Your task to perform on an android device: Open my contact list Image 0: 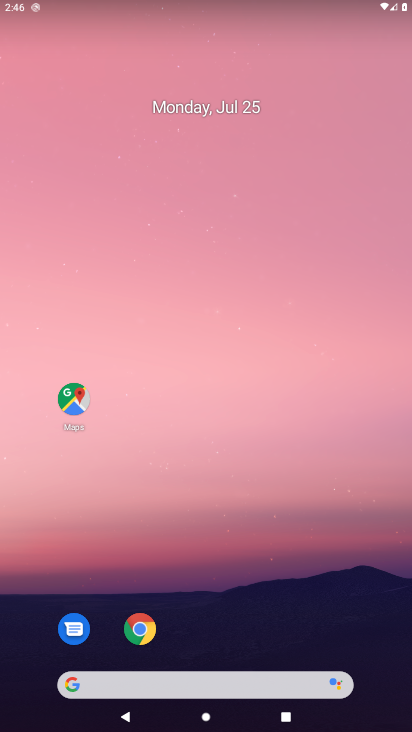
Step 0: drag from (151, 507) to (205, 376)
Your task to perform on an android device: Open my contact list Image 1: 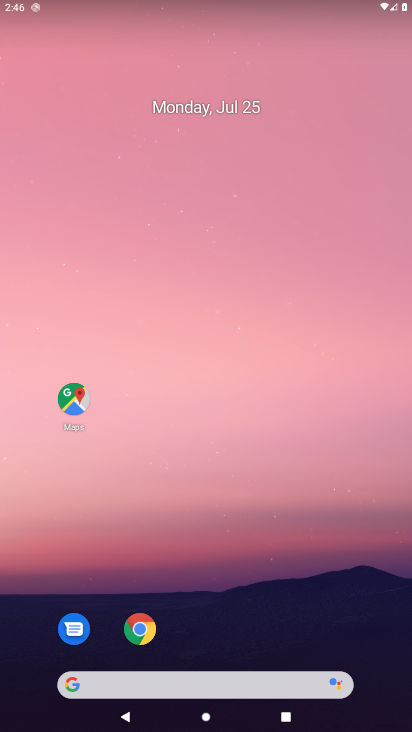
Step 1: drag from (55, 658) to (220, 189)
Your task to perform on an android device: Open my contact list Image 2: 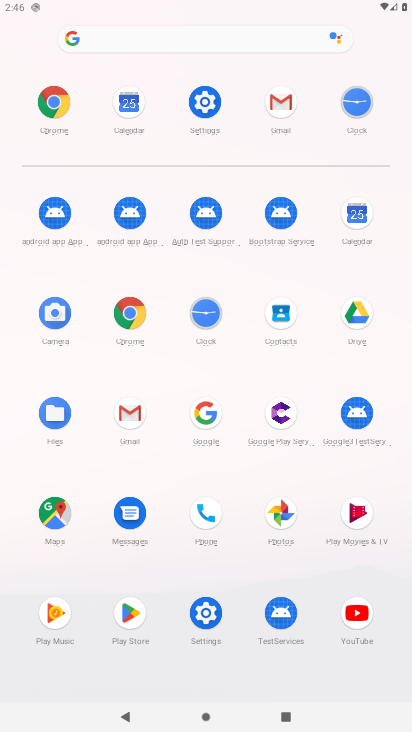
Step 2: click (270, 323)
Your task to perform on an android device: Open my contact list Image 3: 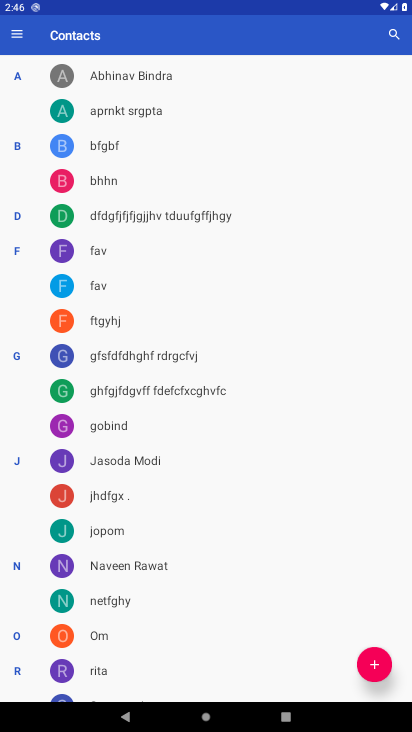
Step 3: task complete